Your task to perform on an android device: turn on priority inbox in the gmail app Image 0: 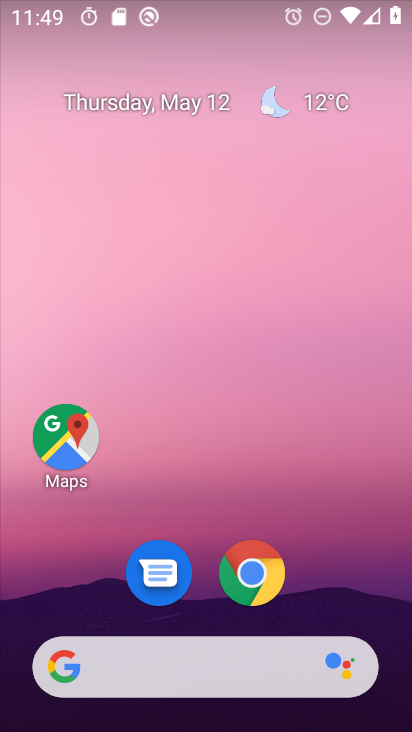
Step 0: drag from (371, 508) to (327, 266)
Your task to perform on an android device: turn on priority inbox in the gmail app Image 1: 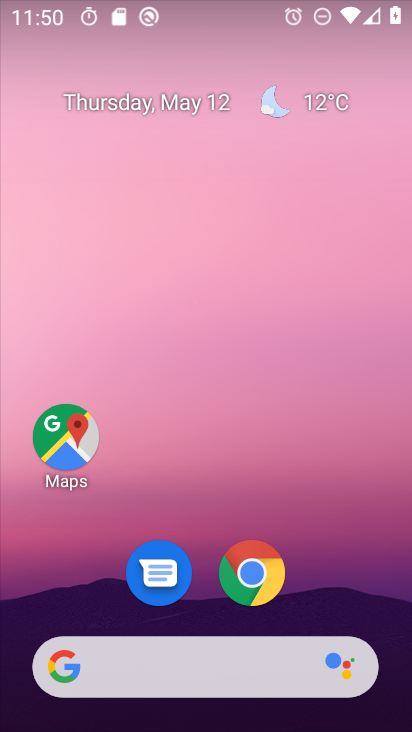
Step 1: drag from (397, 560) to (369, 320)
Your task to perform on an android device: turn on priority inbox in the gmail app Image 2: 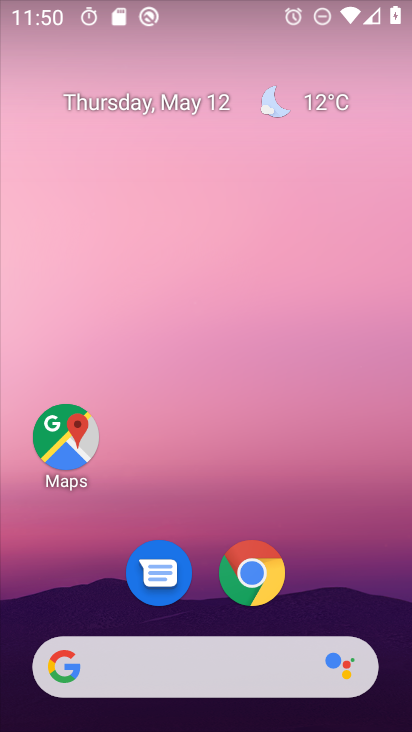
Step 2: drag from (397, 674) to (368, 323)
Your task to perform on an android device: turn on priority inbox in the gmail app Image 3: 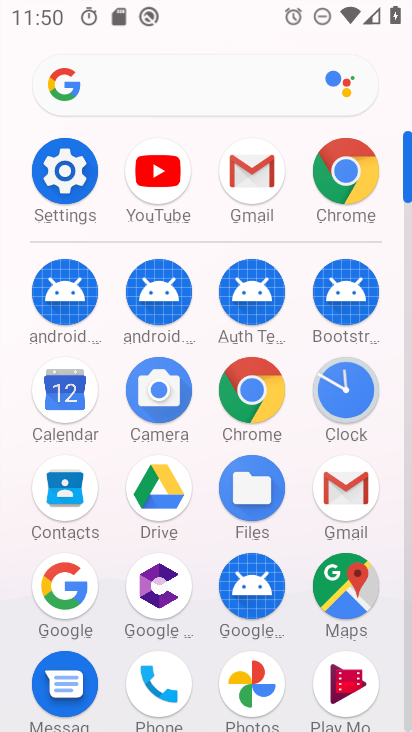
Step 3: click (346, 498)
Your task to perform on an android device: turn on priority inbox in the gmail app Image 4: 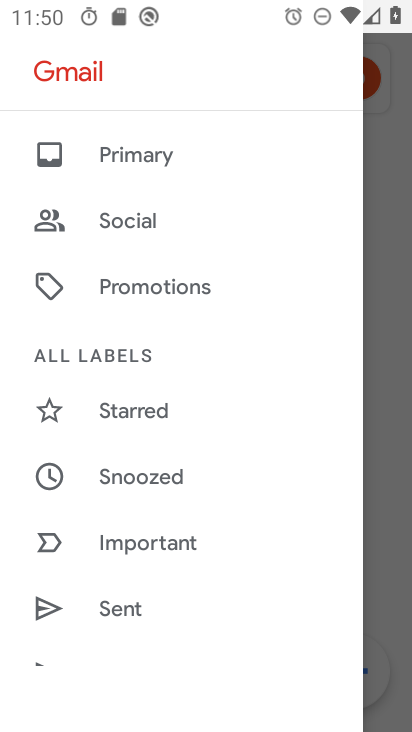
Step 4: drag from (273, 627) to (258, 359)
Your task to perform on an android device: turn on priority inbox in the gmail app Image 5: 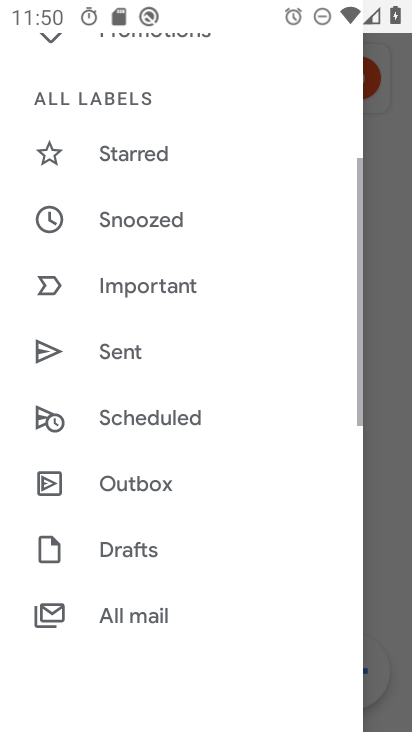
Step 5: drag from (259, 617) to (253, 401)
Your task to perform on an android device: turn on priority inbox in the gmail app Image 6: 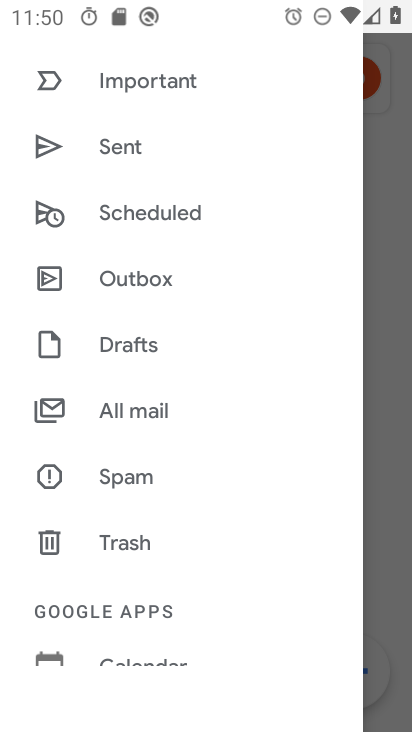
Step 6: drag from (232, 635) to (247, 350)
Your task to perform on an android device: turn on priority inbox in the gmail app Image 7: 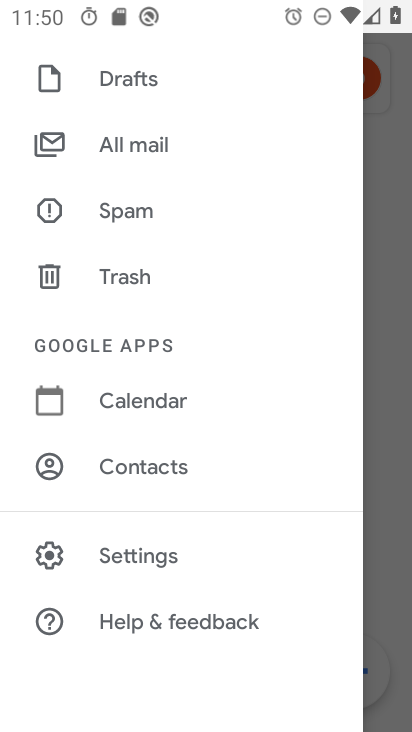
Step 7: click (142, 553)
Your task to perform on an android device: turn on priority inbox in the gmail app Image 8: 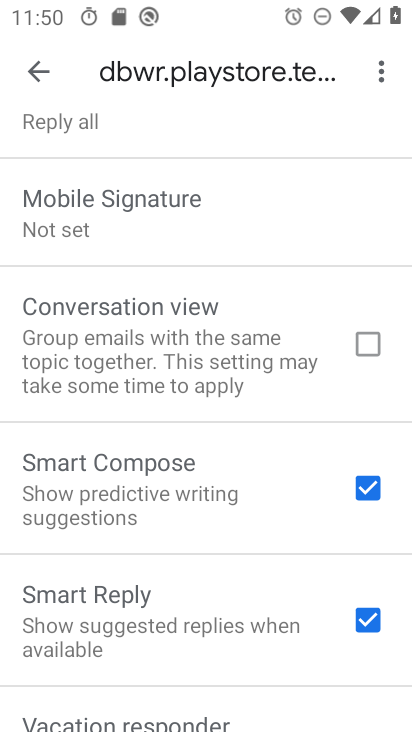
Step 8: drag from (185, 614) to (194, 432)
Your task to perform on an android device: turn on priority inbox in the gmail app Image 9: 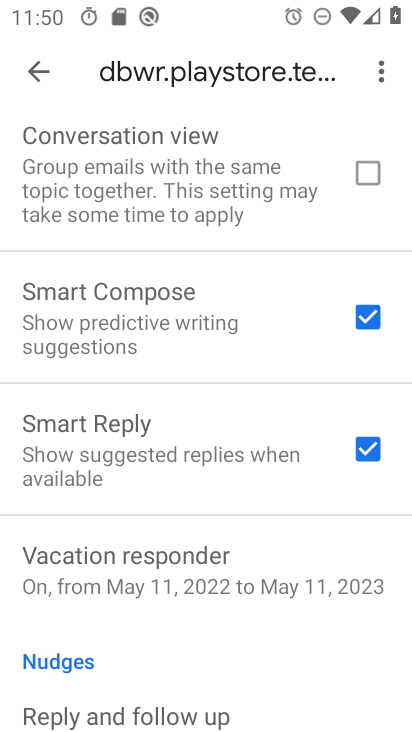
Step 9: drag from (188, 235) to (202, 564)
Your task to perform on an android device: turn on priority inbox in the gmail app Image 10: 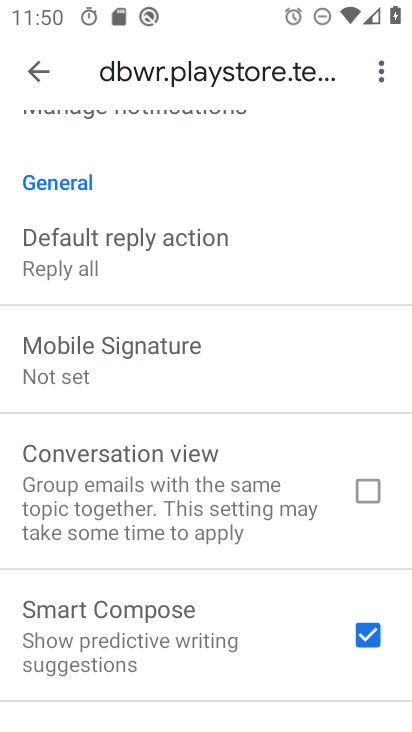
Step 10: click (43, 68)
Your task to perform on an android device: turn on priority inbox in the gmail app Image 11: 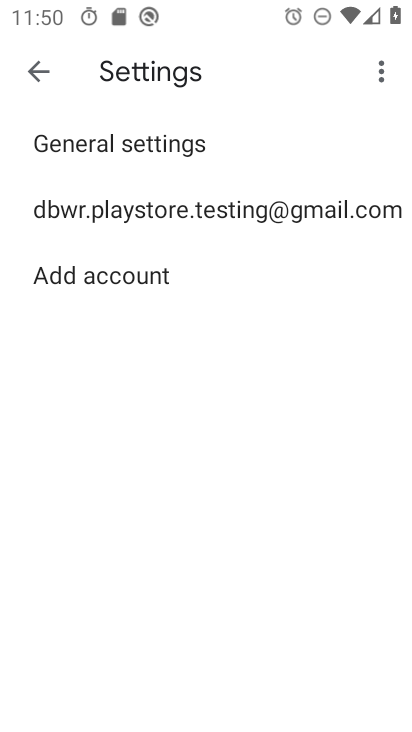
Step 11: click (136, 217)
Your task to perform on an android device: turn on priority inbox in the gmail app Image 12: 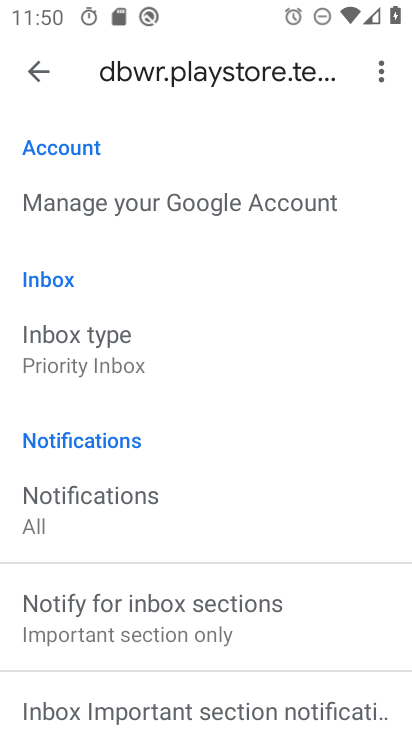
Step 12: click (80, 340)
Your task to perform on an android device: turn on priority inbox in the gmail app Image 13: 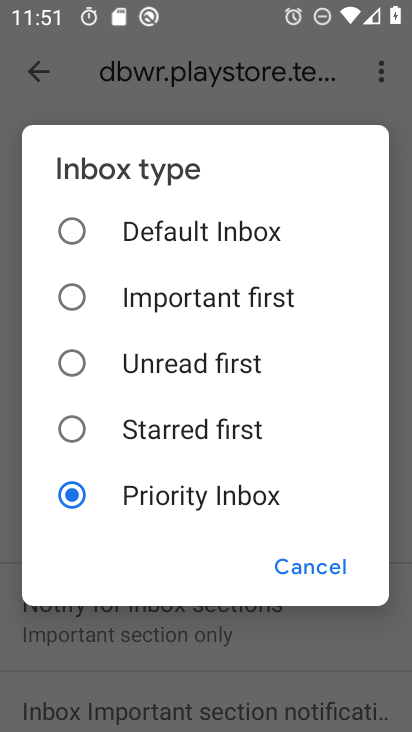
Step 13: task complete